Your task to perform on an android device: turn off airplane mode Image 0: 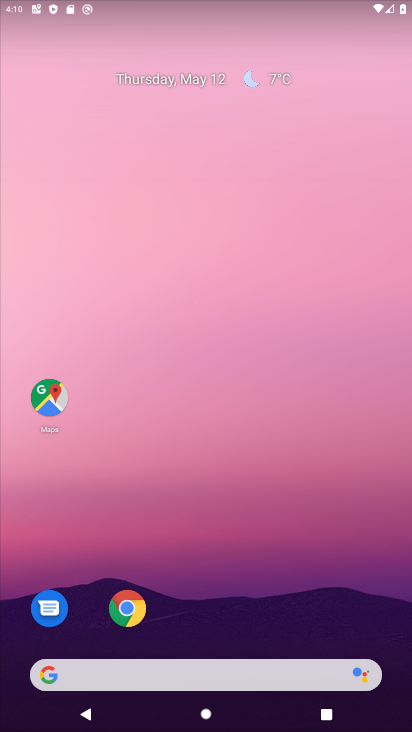
Step 0: drag from (289, 9) to (181, 560)
Your task to perform on an android device: turn off airplane mode Image 1: 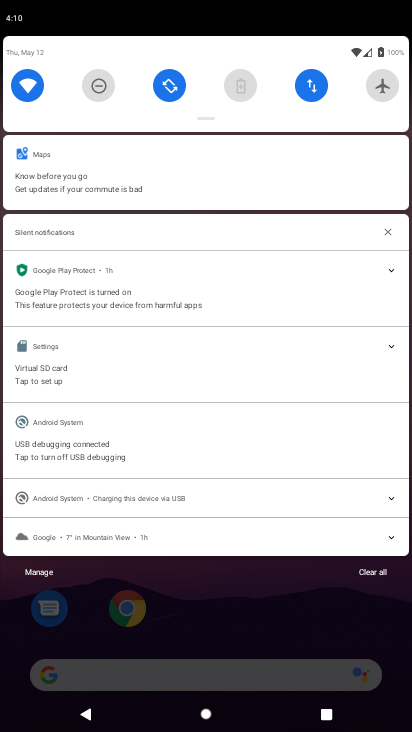
Step 1: task complete